Your task to perform on an android device: Check the weather Image 0: 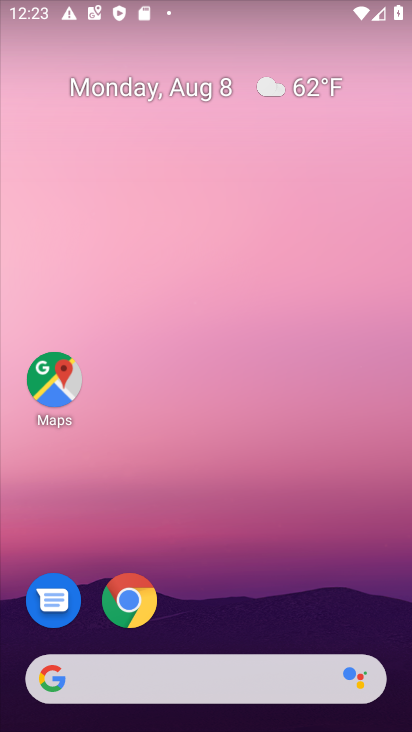
Step 0: drag from (216, 482) to (232, 209)
Your task to perform on an android device: Check the weather Image 1: 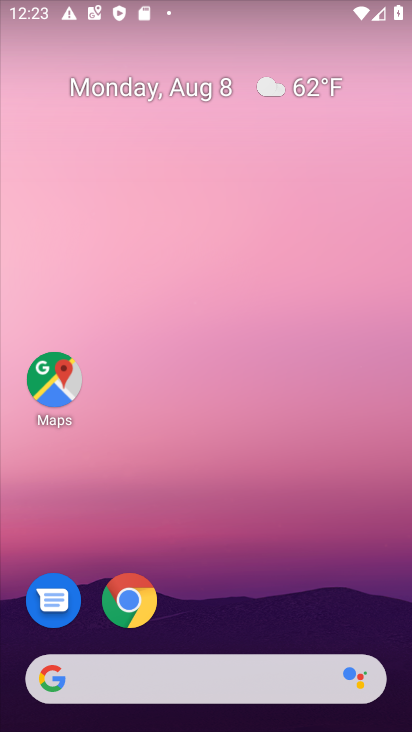
Step 1: drag from (212, 626) to (217, 178)
Your task to perform on an android device: Check the weather Image 2: 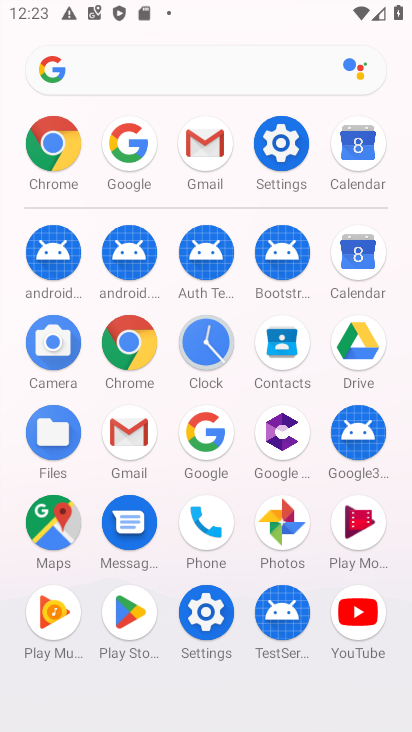
Step 2: click (194, 429)
Your task to perform on an android device: Check the weather Image 3: 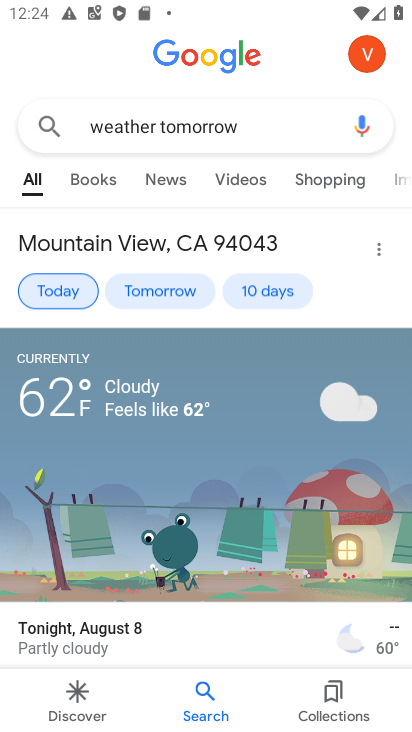
Step 3: click (53, 299)
Your task to perform on an android device: Check the weather Image 4: 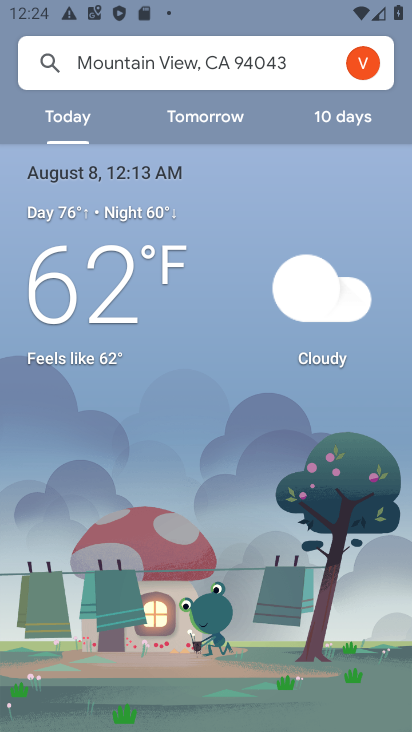
Step 4: task complete